Your task to perform on an android device: refresh tabs in the chrome app Image 0: 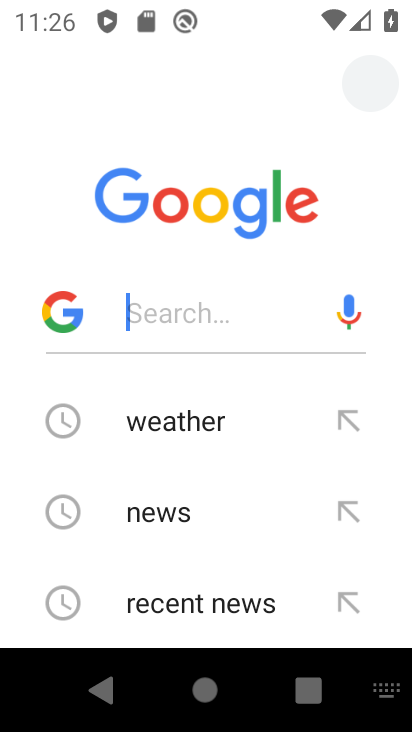
Step 0: press home button
Your task to perform on an android device: refresh tabs in the chrome app Image 1: 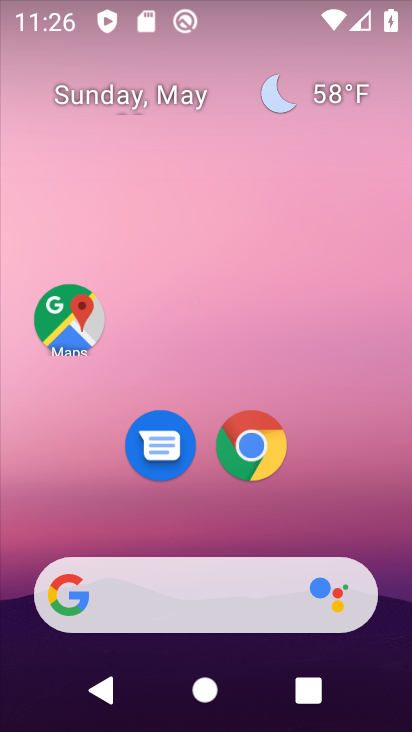
Step 1: click (248, 444)
Your task to perform on an android device: refresh tabs in the chrome app Image 2: 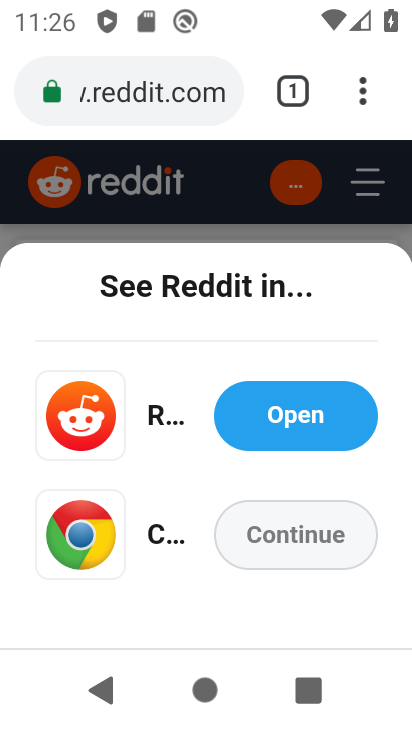
Step 2: click (354, 91)
Your task to perform on an android device: refresh tabs in the chrome app Image 3: 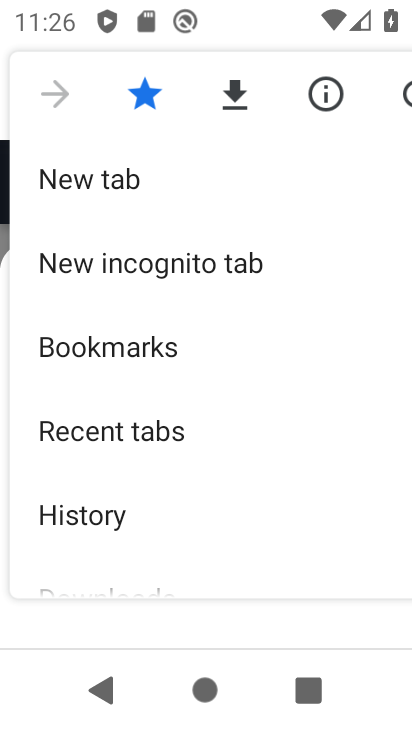
Step 3: click (398, 96)
Your task to perform on an android device: refresh tabs in the chrome app Image 4: 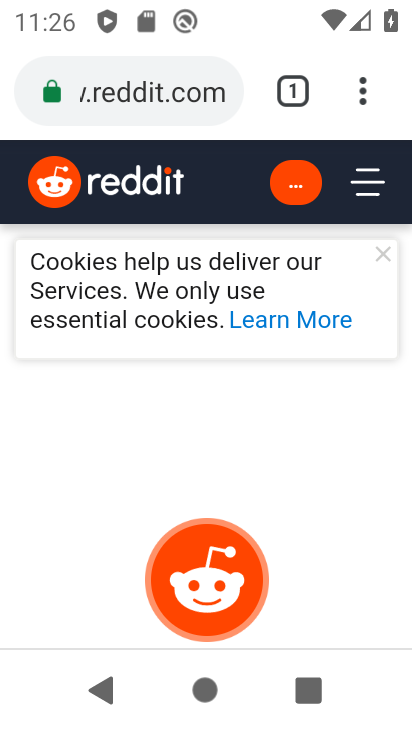
Step 4: task complete